Your task to perform on an android device: turn on the 24-hour format for clock Image 0: 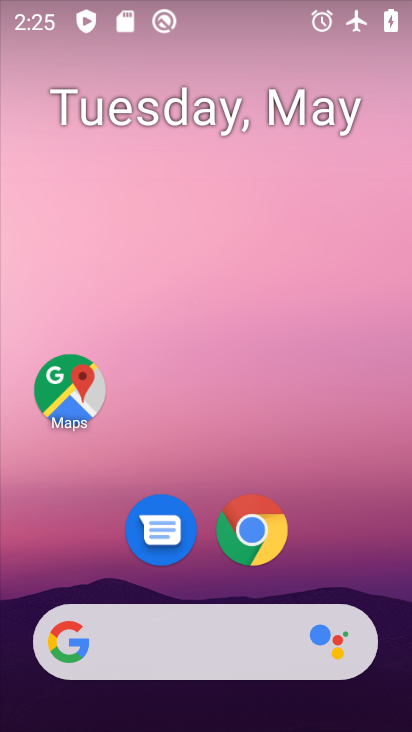
Step 0: drag from (194, 580) to (229, 136)
Your task to perform on an android device: turn on the 24-hour format for clock Image 1: 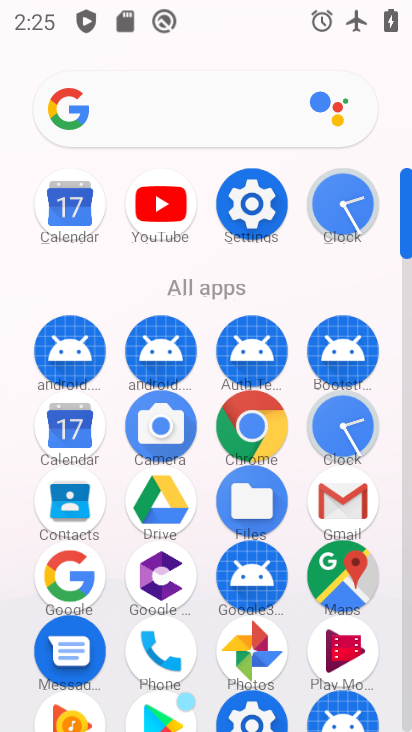
Step 1: click (324, 213)
Your task to perform on an android device: turn on the 24-hour format for clock Image 2: 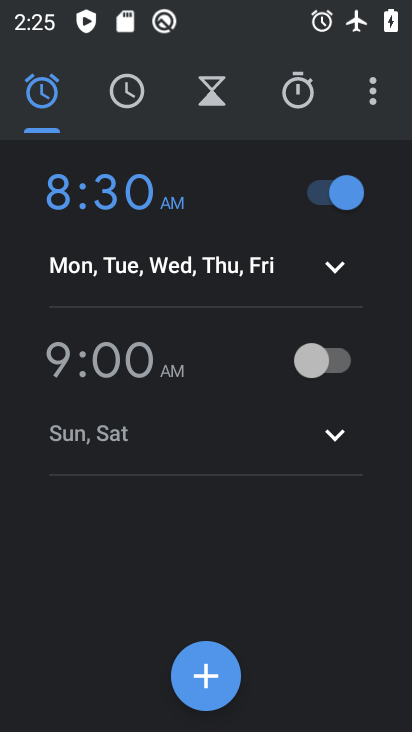
Step 2: click (373, 97)
Your task to perform on an android device: turn on the 24-hour format for clock Image 3: 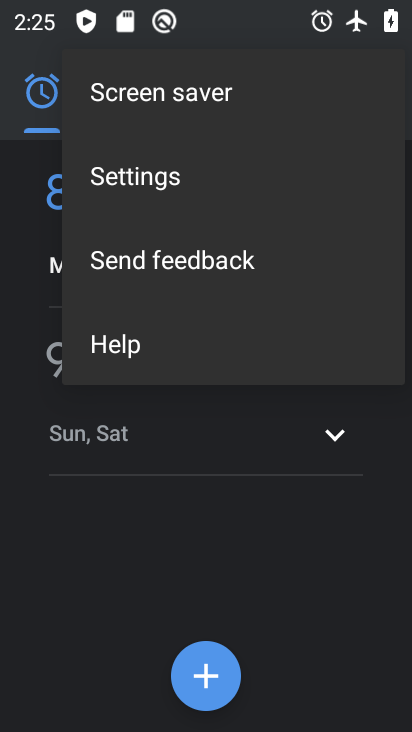
Step 3: click (187, 174)
Your task to perform on an android device: turn on the 24-hour format for clock Image 4: 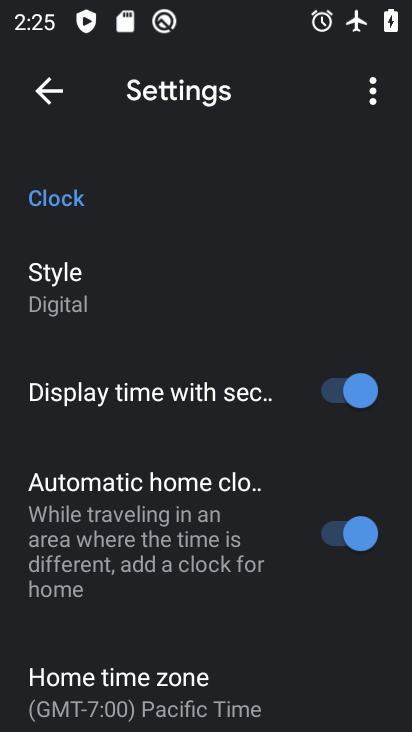
Step 4: drag from (174, 618) to (206, 221)
Your task to perform on an android device: turn on the 24-hour format for clock Image 5: 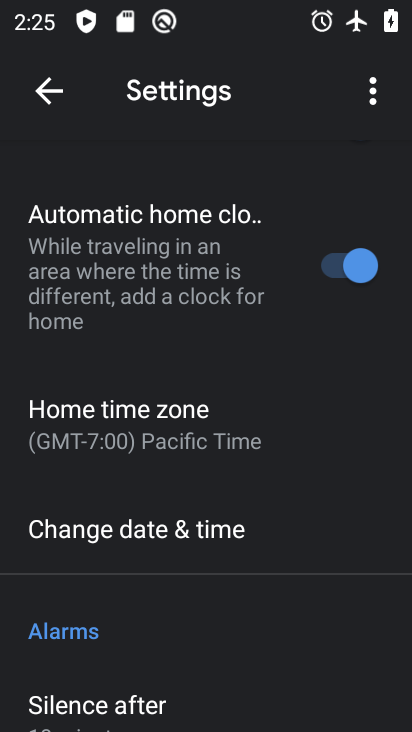
Step 5: click (179, 510)
Your task to perform on an android device: turn on the 24-hour format for clock Image 6: 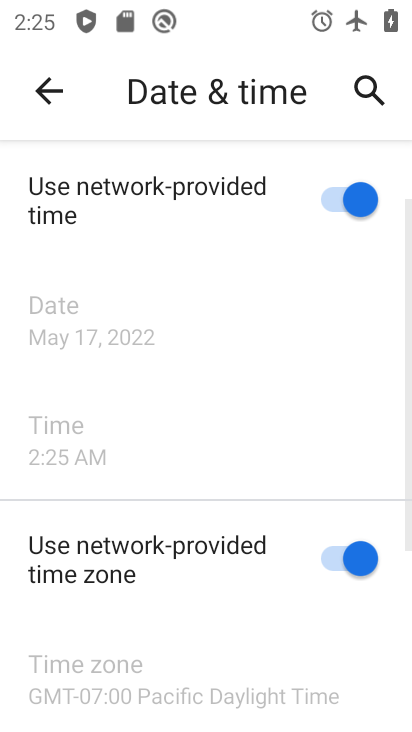
Step 6: drag from (171, 547) to (231, 191)
Your task to perform on an android device: turn on the 24-hour format for clock Image 7: 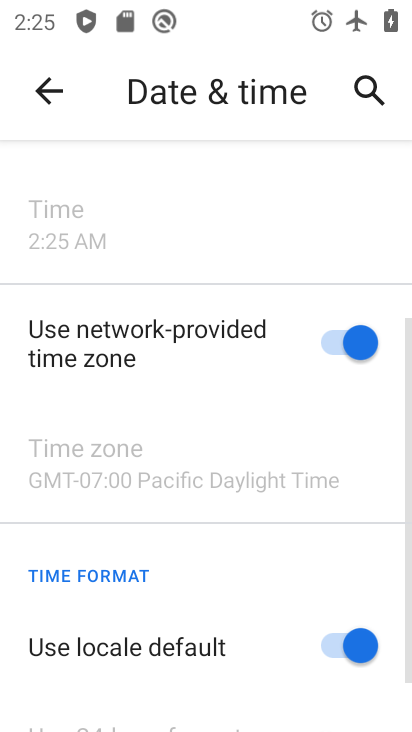
Step 7: drag from (238, 560) to (271, 213)
Your task to perform on an android device: turn on the 24-hour format for clock Image 8: 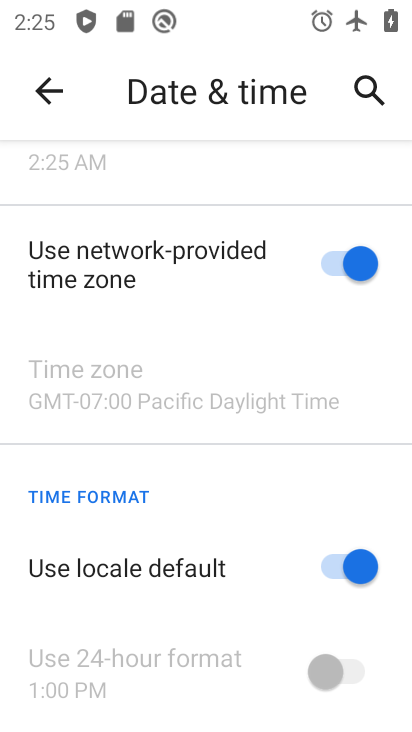
Step 8: click (329, 564)
Your task to perform on an android device: turn on the 24-hour format for clock Image 9: 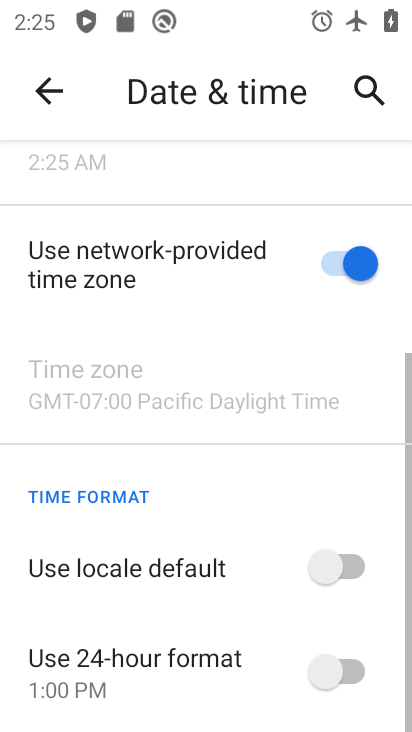
Step 9: click (342, 666)
Your task to perform on an android device: turn on the 24-hour format for clock Image 10: 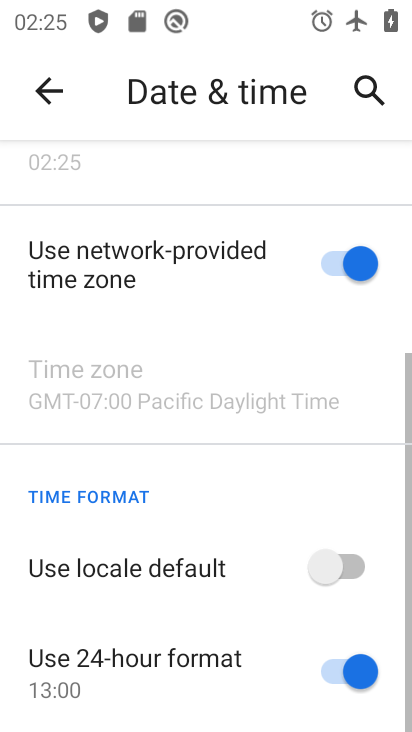
Step 10: task complete